Your task to perform on an android device: Open Yahoo.com Image 0: 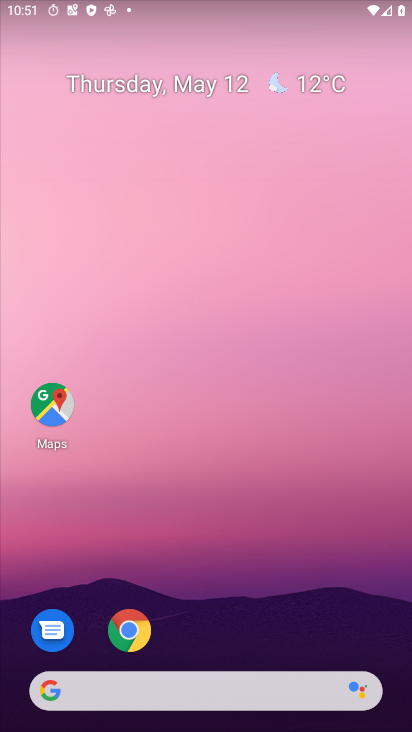
Step 0: click (124, 633)
Your task to perform on an android device: Open Yahoo.com Image 1: 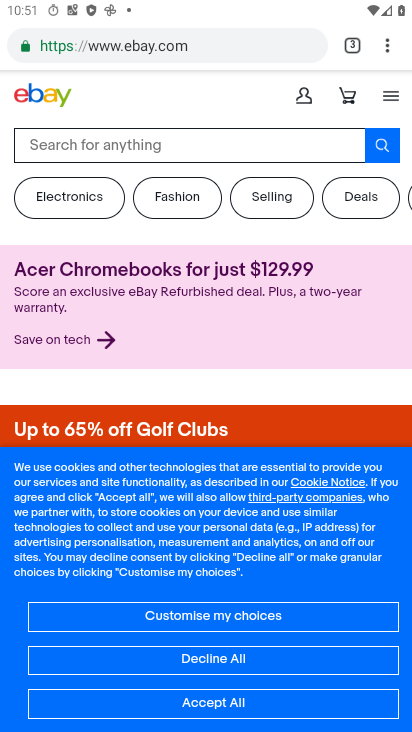
Step 1: click (160, 50)
Your task to perform on an android device: Open Yahoo.com Image 2: 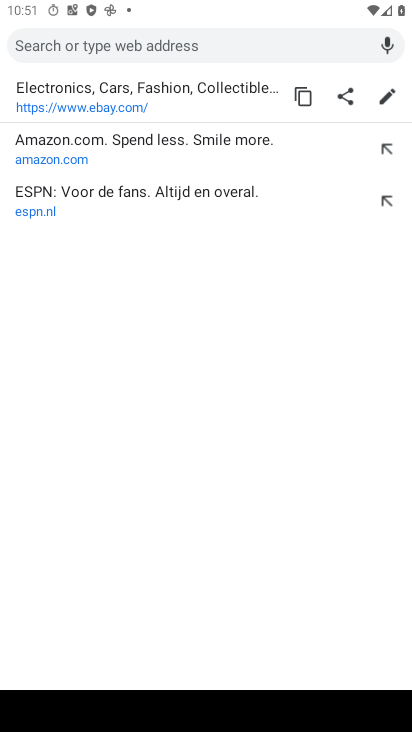
Step 2: type "yahoo.com"
Your task to perform on an android device: Open Yahoo.com Image 3: 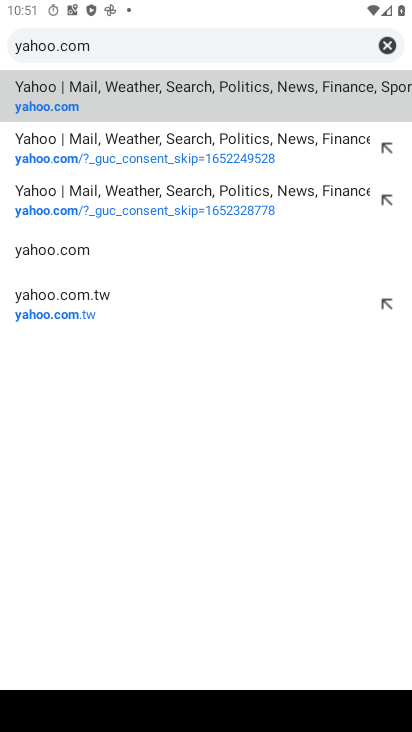
Step 3: click (125, 70)
Your task to perform on an android device: Open Yahoo.com Image 4: 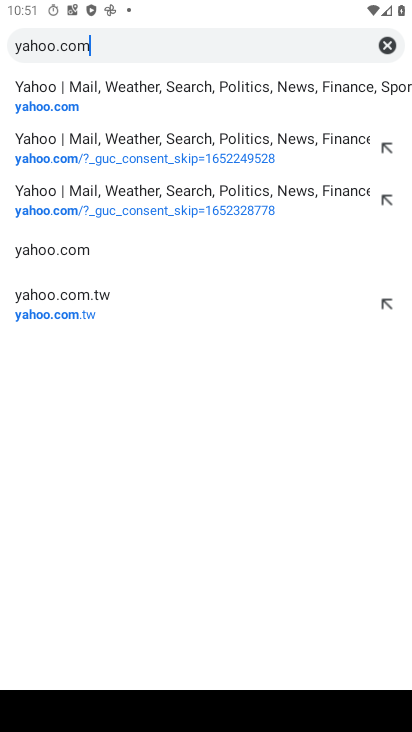
Step 4: click (123, 77)
Your task to perform on an android device: Open Yahoo.com Image 5: 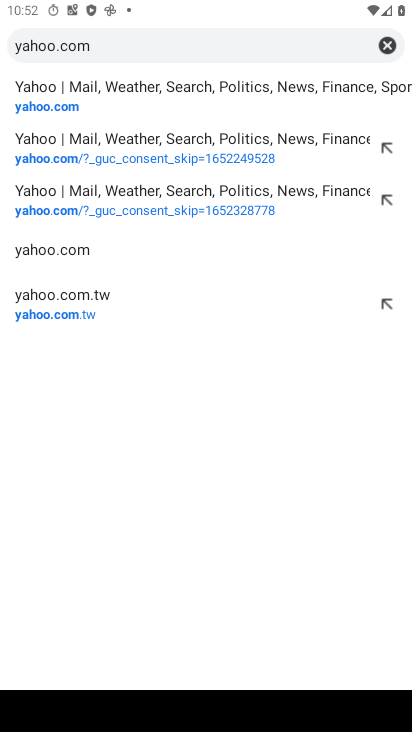
Step 5: click (123, 92)
Your task to perform on an android device: Open Yahoo.com Image 6: 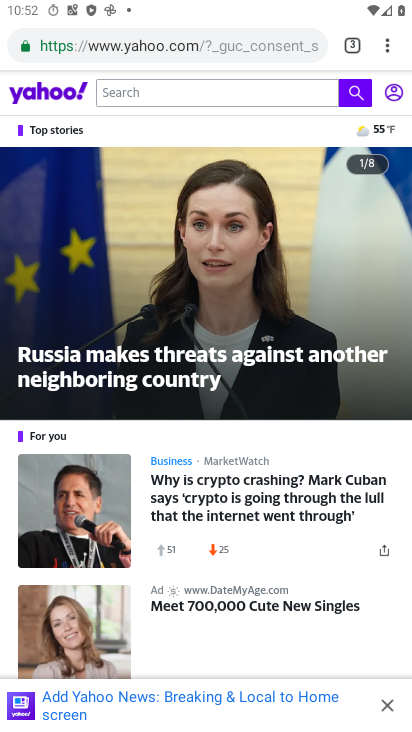
Step 6: task complete